Your task to perform on an android device: Open calendar and show me the third week of next month Image 0: 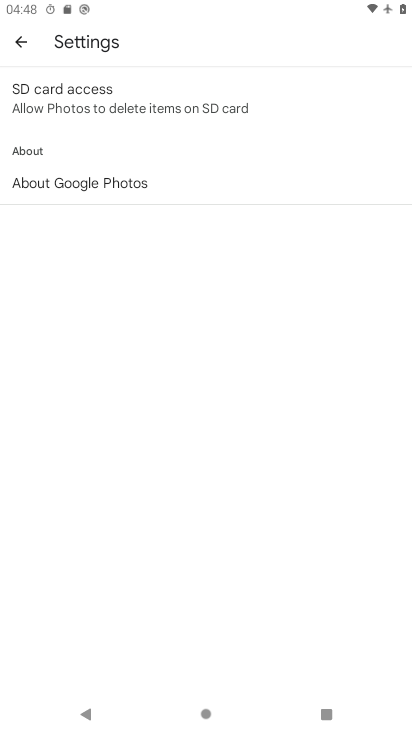
Step 0: press home button
Your task to perform on an android device: Open calendar and show me the third week of next month Image 1: 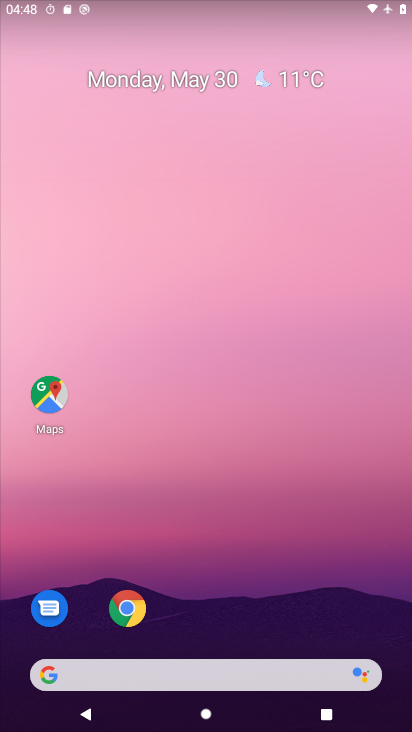
Step 1: drag from (321, 546) to (225, 12)
Your task to perform on an android device: Open calendar and show me the third week of next month Image 2: 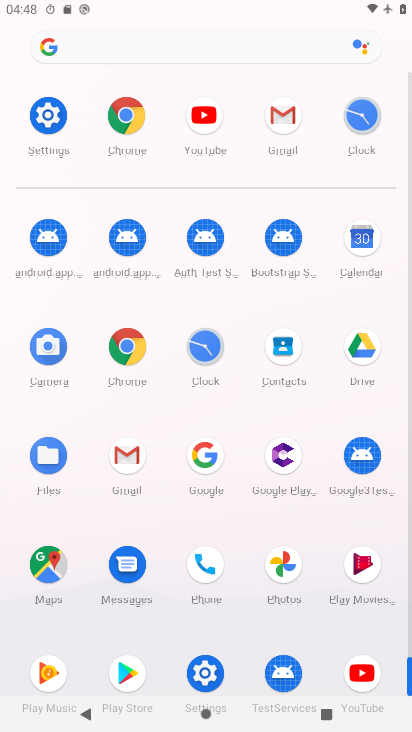
Step 2: click (359, 235)
Your task to perform on an android device: Open calendar and show me the third week of next month Image 3: 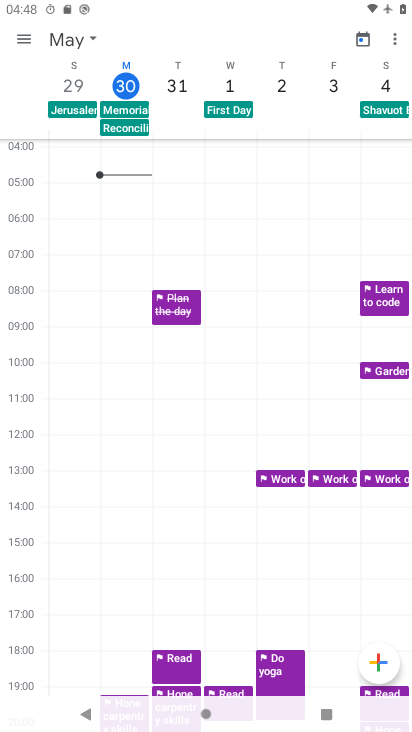
Step 3: click (91, 32)
Your task to perform on an android device: Open calendar and show me the third week of next month Image 4: 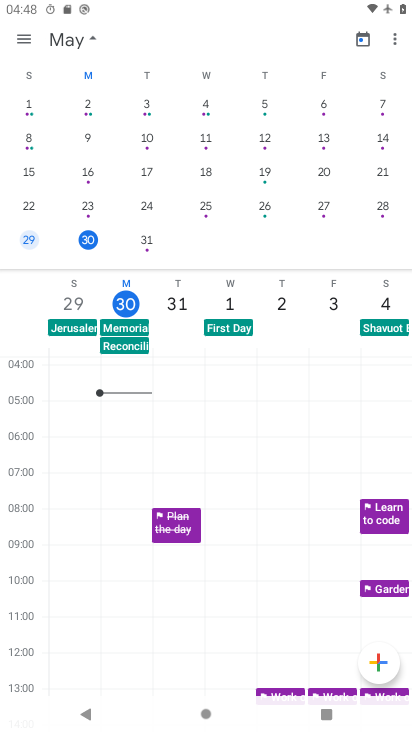
Step 4: drag from (374, 179) to (0, 205)
Your task to perform on an android device: Open calendar and show me the third week of next month Image 5: 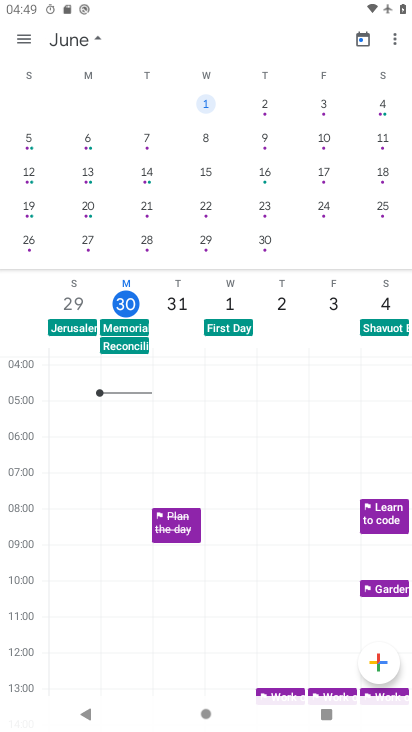
Step 5: click (35, 168)
Your task to perform on an android device: Open calendar and show me the third week of next month Image 6: 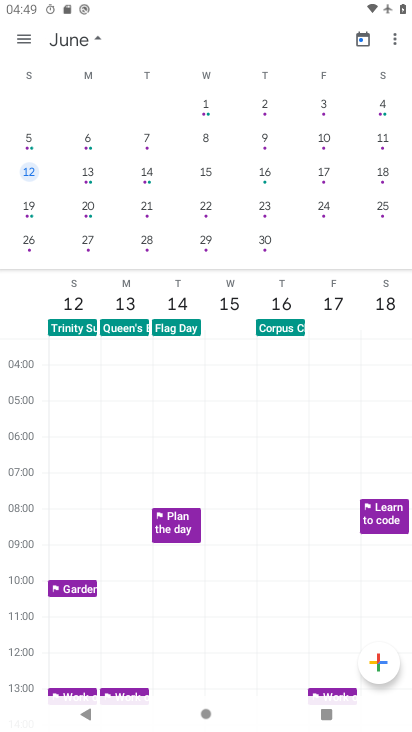
Step 6: task complete